Your task to perform on an android device: What's the weather like in Seoul? Image 0: 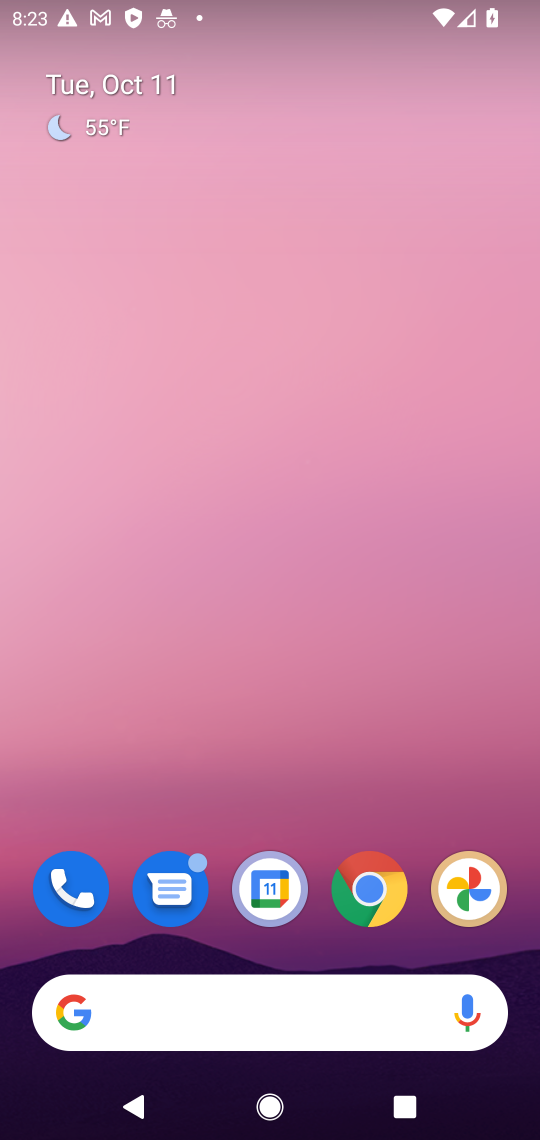
Step 0: click (239, 1041)
Your task to perform on an android device: What's the weather like in Seoul? Image 1: 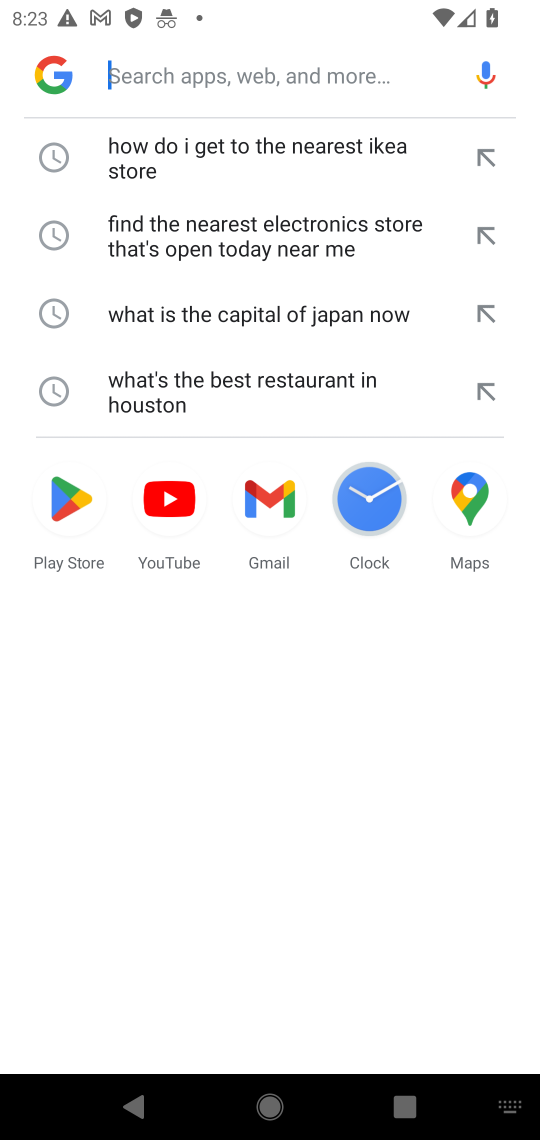
Step 1: click (198, 68)
Your task to perform on an android device: What's the weather like in Seoul? Image 2: 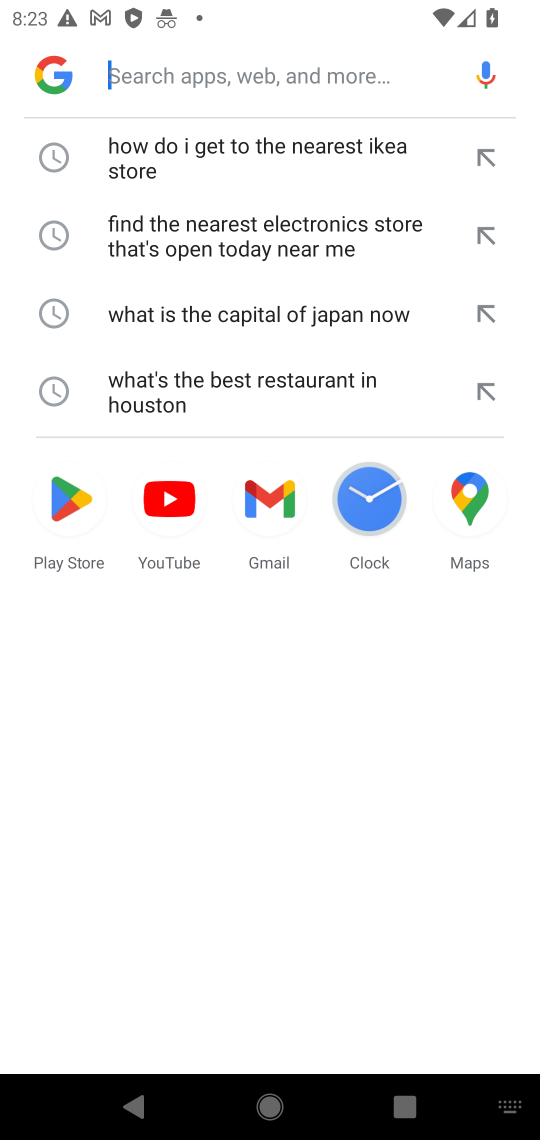
Step 2: type "What's the weather like in Seoul?"
Your task to perform on an android device: What's the weather like in Seoul? Image 3: 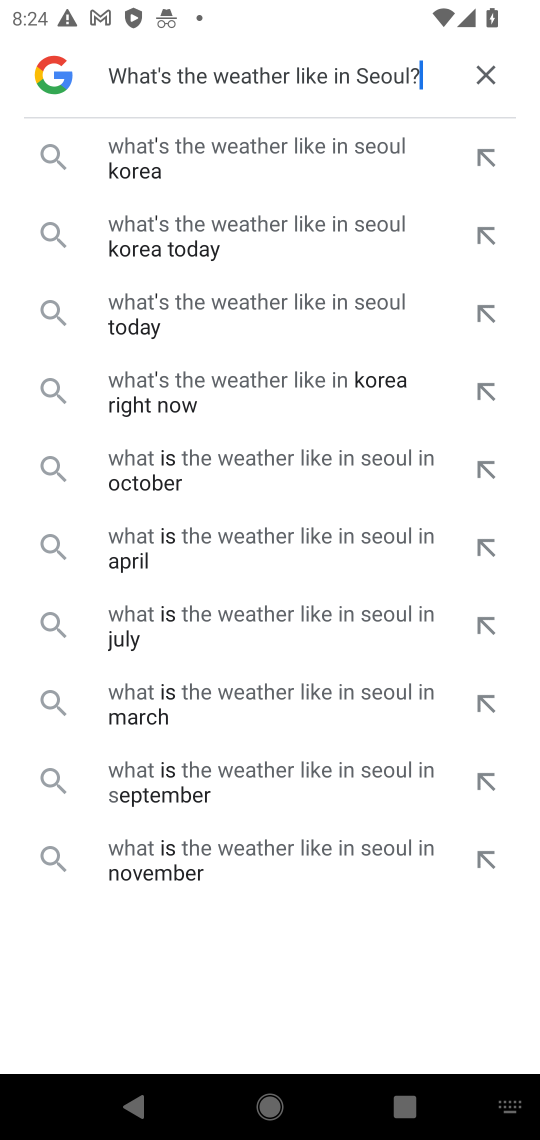
Step 3: click (272, 162)
Your task to perform on an android device: What's the weather like in Seoul? Image 4: 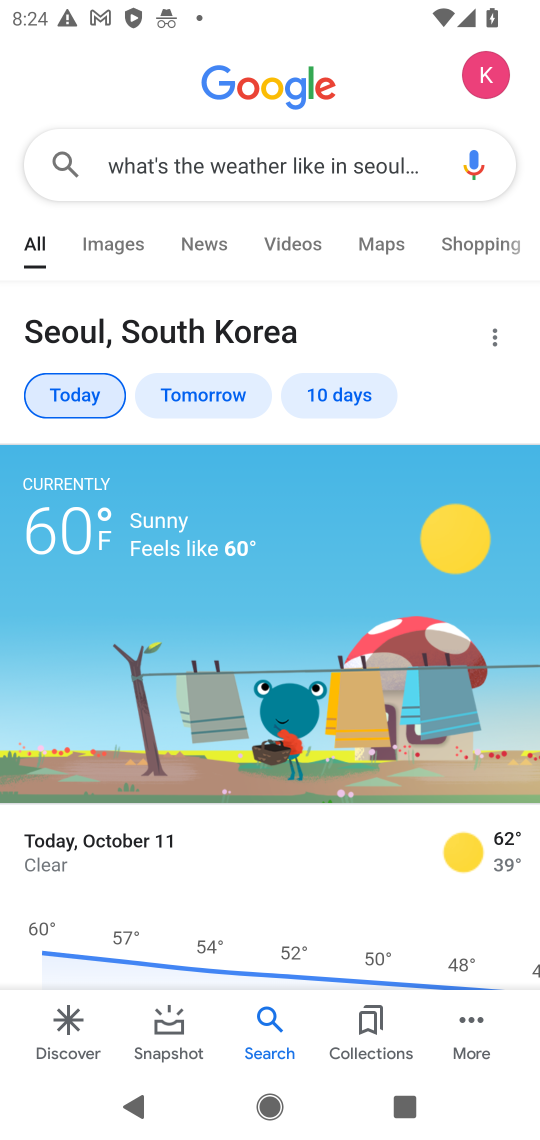
Step 4: task complete